Your task to perform on an android device: Open the stopwatch Image 0: 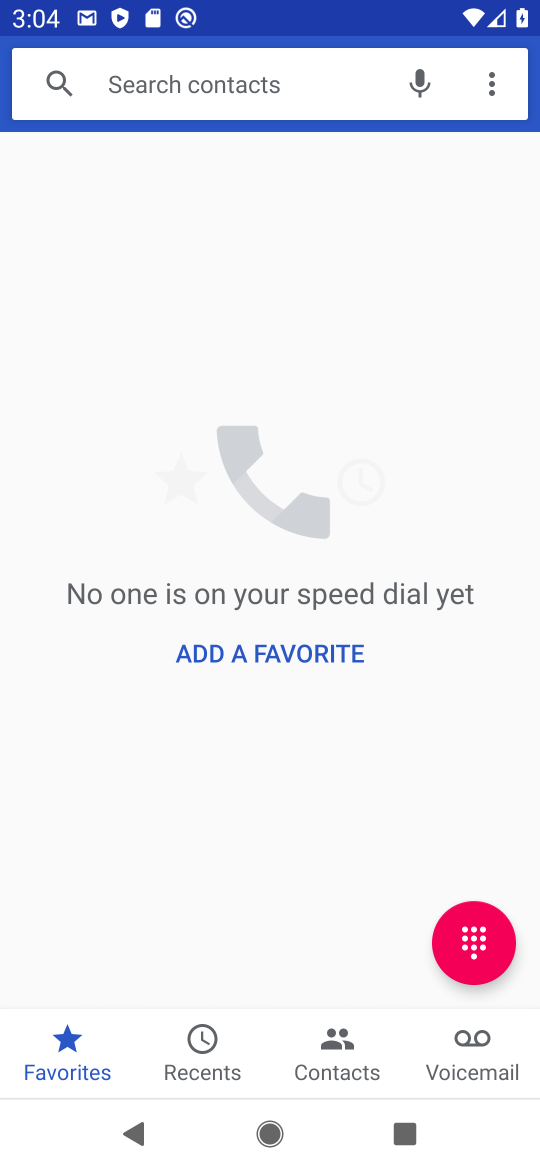
Step 0: press home button
Your task to perform on an android device: Open the stopwatch Image 1: 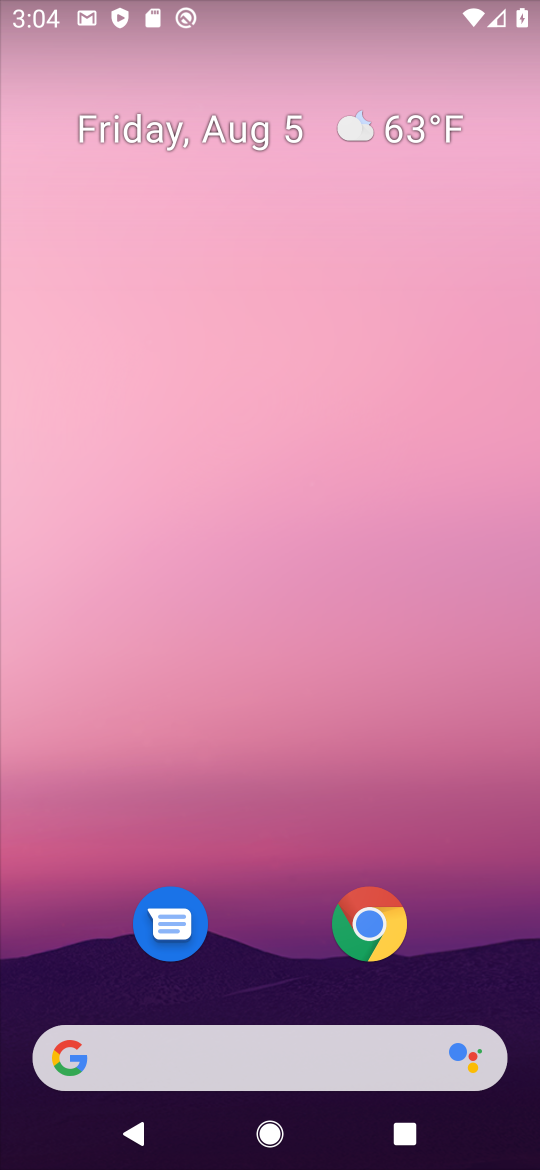
Step 1: drag from (287, 645) to (267, 93)
Your task to perform on an android device: Open the stopwatch Image 2: 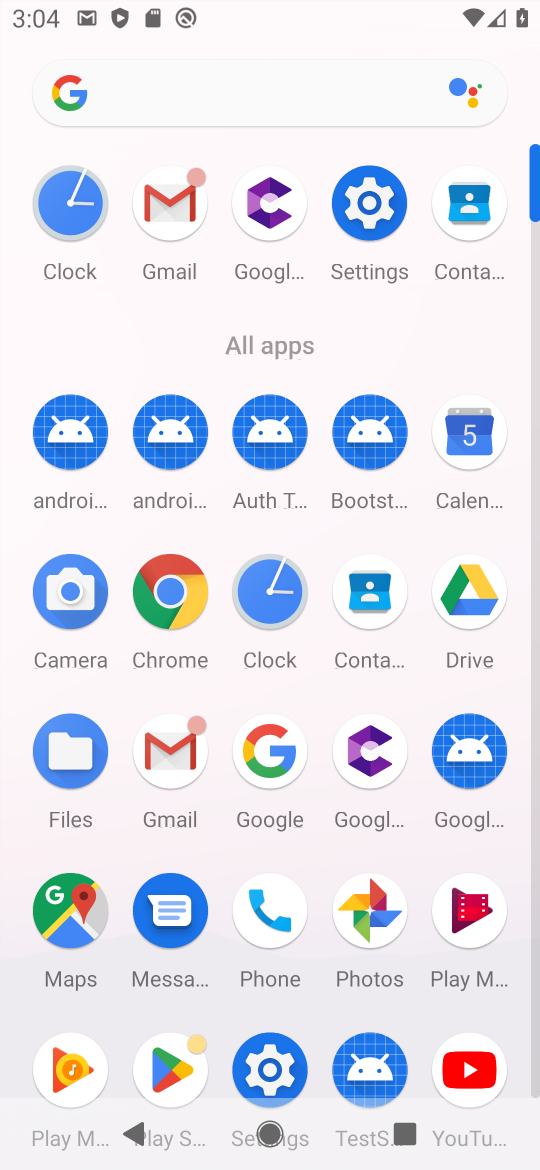
Step 2: click (278, 597)
Your task to perform on an android device: Open the stopwatch Image 3: 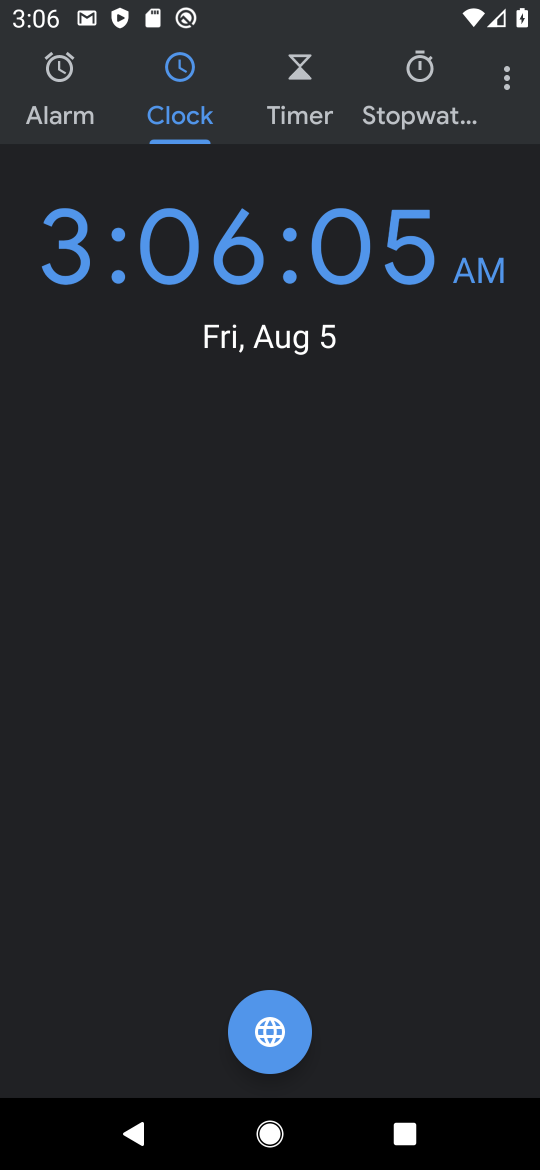
Step 3: click (434, 106)
Your task to perform on an android device: Open the stopwatch Image 4: 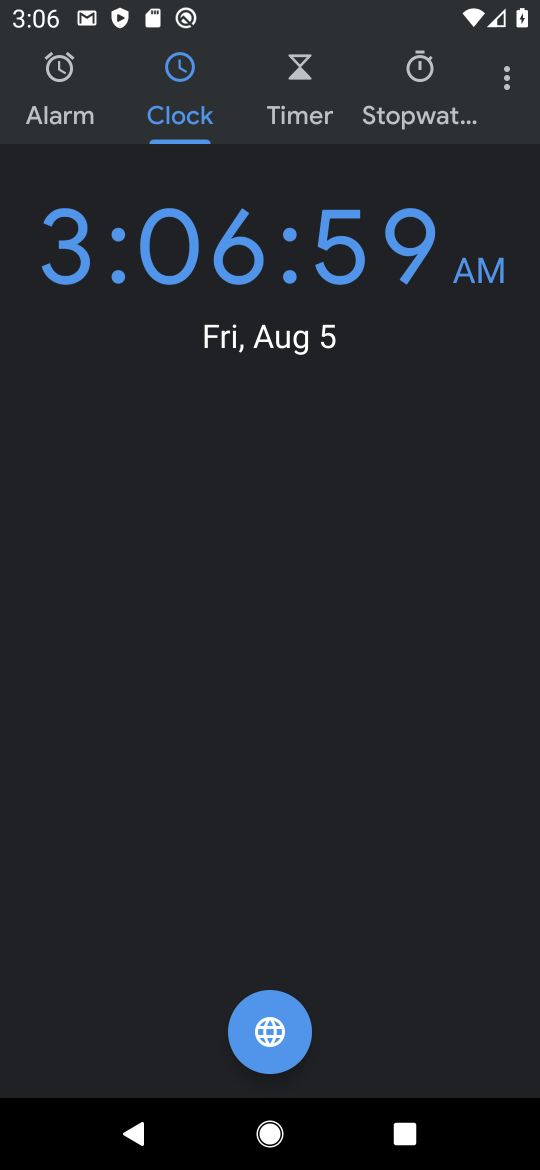
Step 4: click (431, 107)
Your task to perform on an android device: Open the stopwatch Image 5: 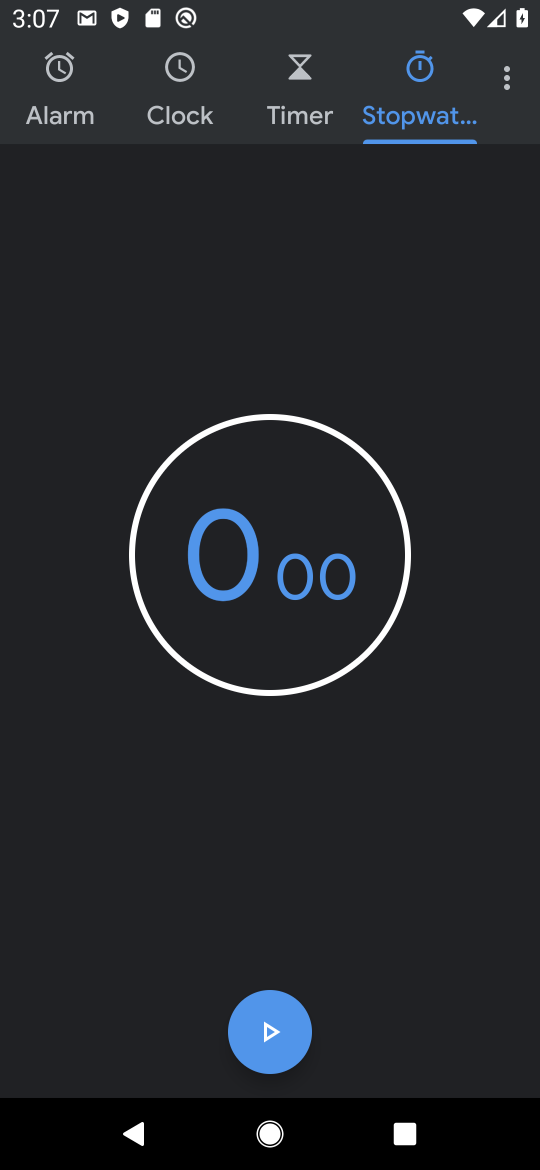
Step 5: task complete